Your task to perform on an android device: Go to Wikipedia Image 0: 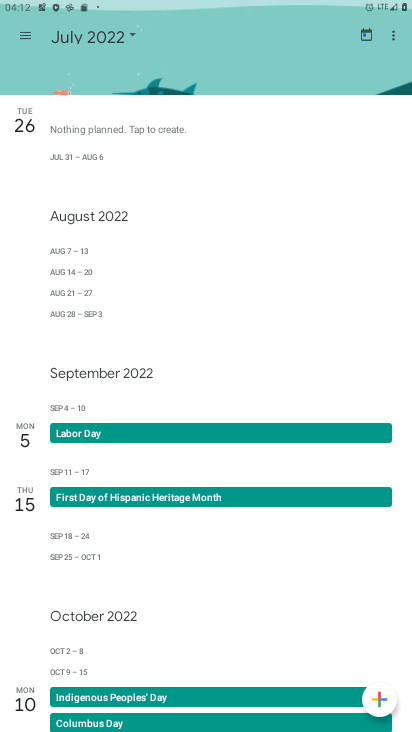
Step 0: press home button
Your task to perform on an android device: Go to Wikipedia Image 1: 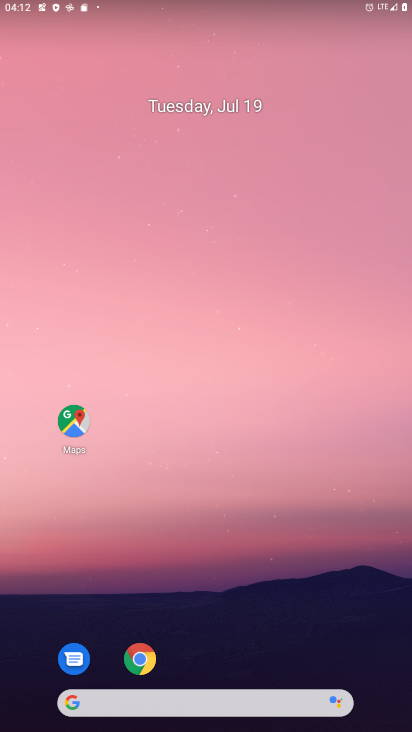
Step 1: click (147, 673)
Your task to perform on an android device: Go to Wikipedia Image 2: 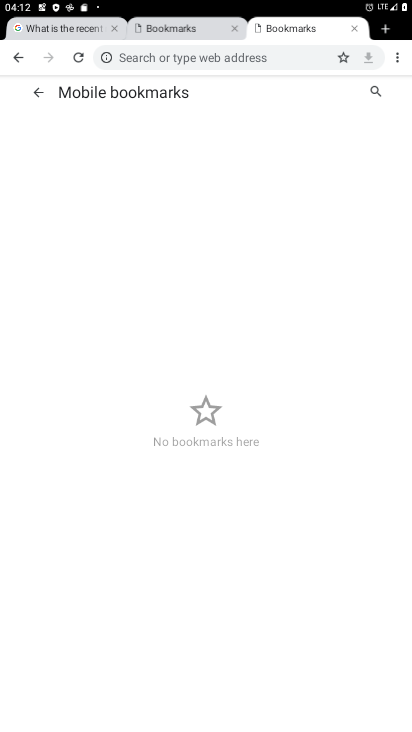
Step 2: click (193, 47)
Your task to perform on an android device: Go to Wikipedia Image 3: 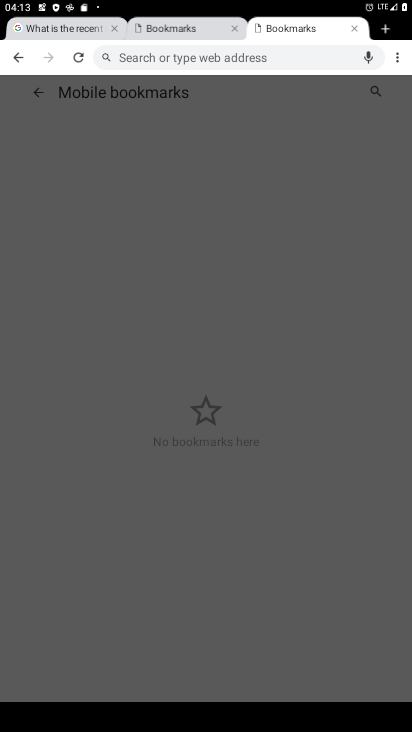
Step 3: type "Wikipedia"
Your task to perform on an android device: Go to Wikipedia Image 4: 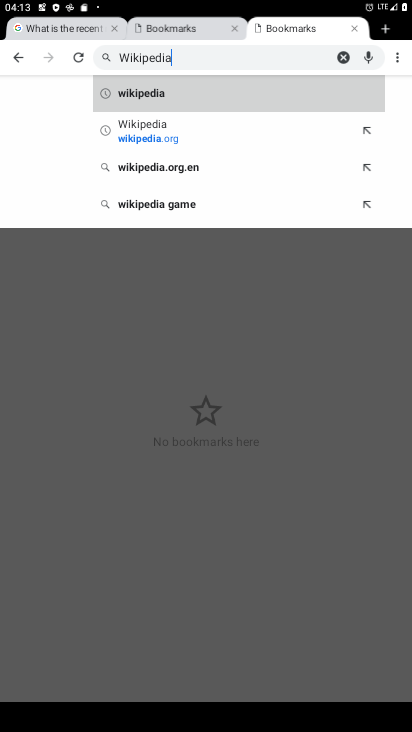
Step 4: type ""
Your task to perform on an android device: Go to Wikipedia Image 5: 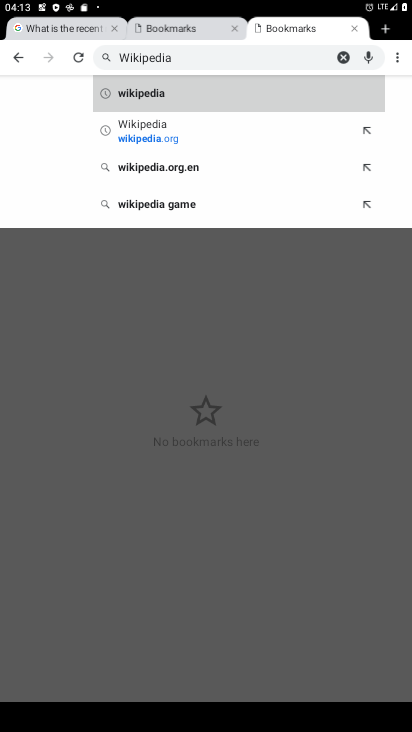
Step 5: click (139, 127)
Your task to perform on an android device: Go to Wikipedia Image 6: 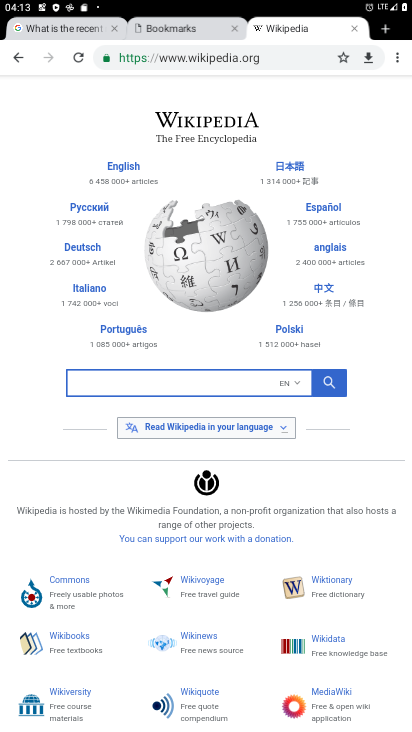
Step 6: task complete